Your task to perform on an android device: Open settings Image 0: 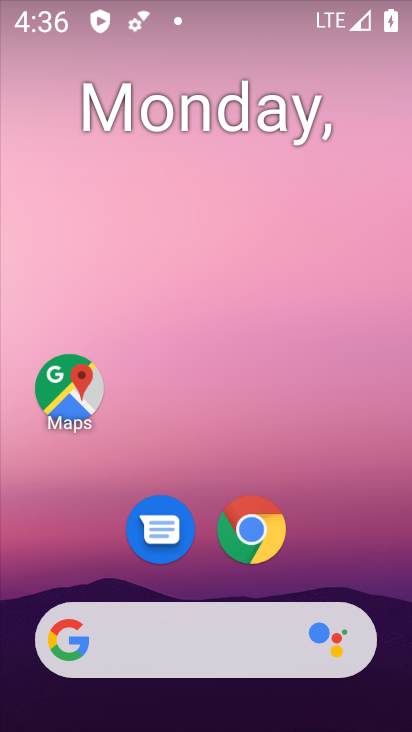
Step 0: click (257, 88)
Your task to perform on an android device: Open settings Image 1: 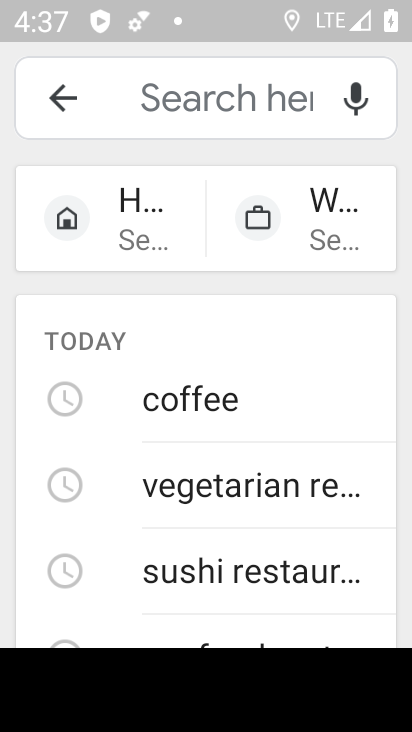
Step 1: press home button
Your task to perform on an android device: Open settings Image 2: 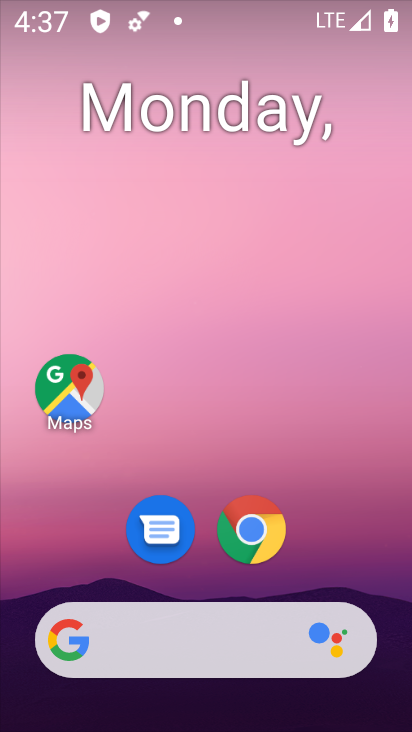
Step 2: drag from (338, 569) to (240, 47)
Your task to perform on an android device: Open settings Image 3: 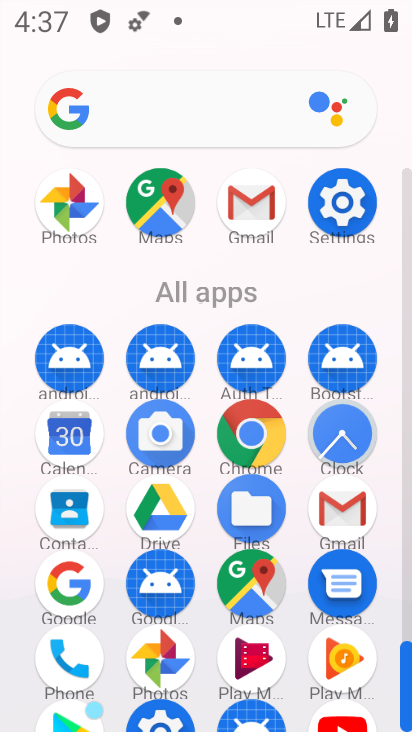
Step 3: click (349, 173)
Your task to perform on an android device: Open settings Image 4: 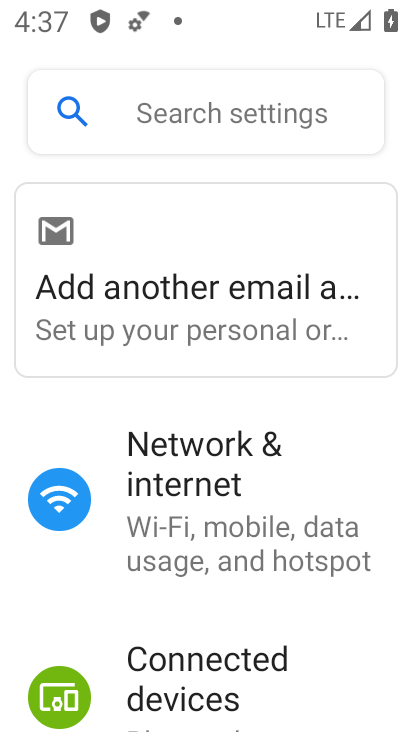
Step 4: task complete